Your task to perform on an android device: Search for razer blade on costco, select the first entry, add it to the cart, then select checkout. Image 0: 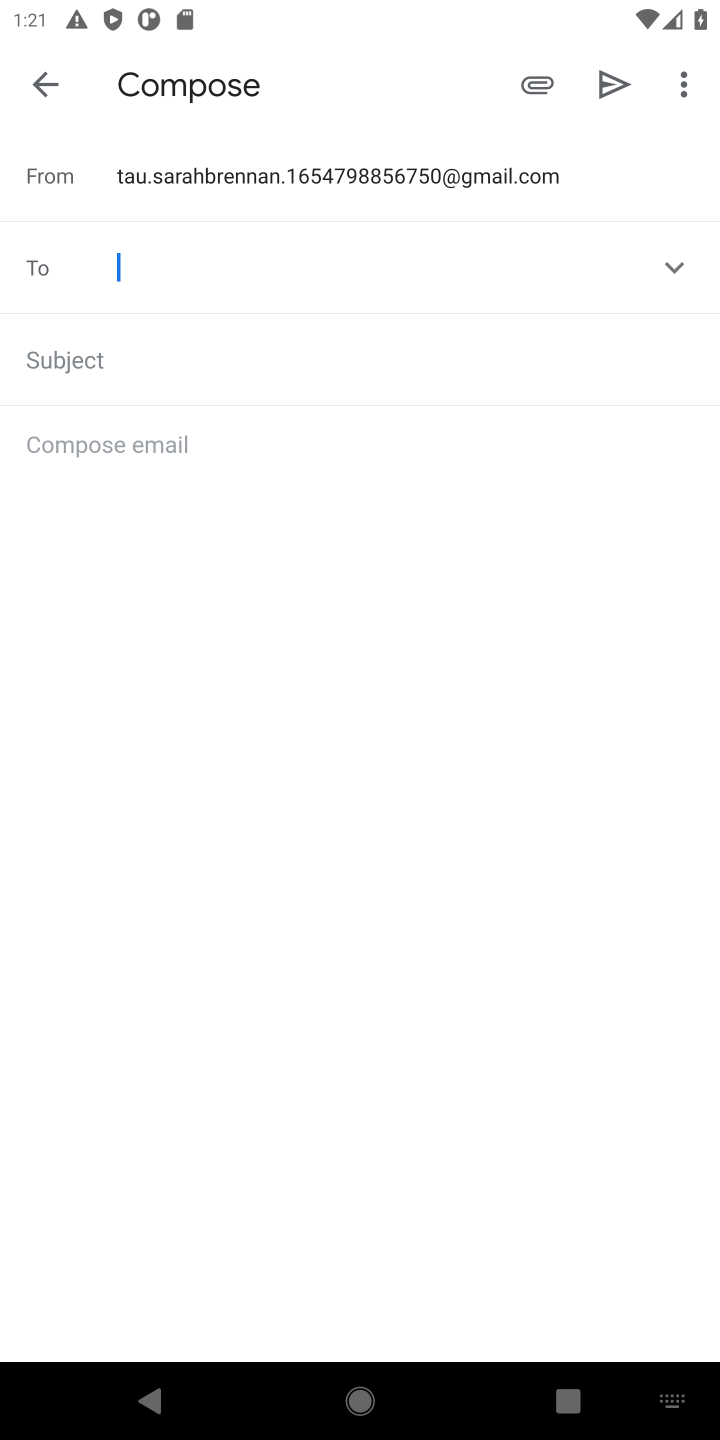
Step 0: press home button
Your task to perform on an android device: Search for razer blade on costco, select the first entry, add it to the cart, then select checkout. Image 1: 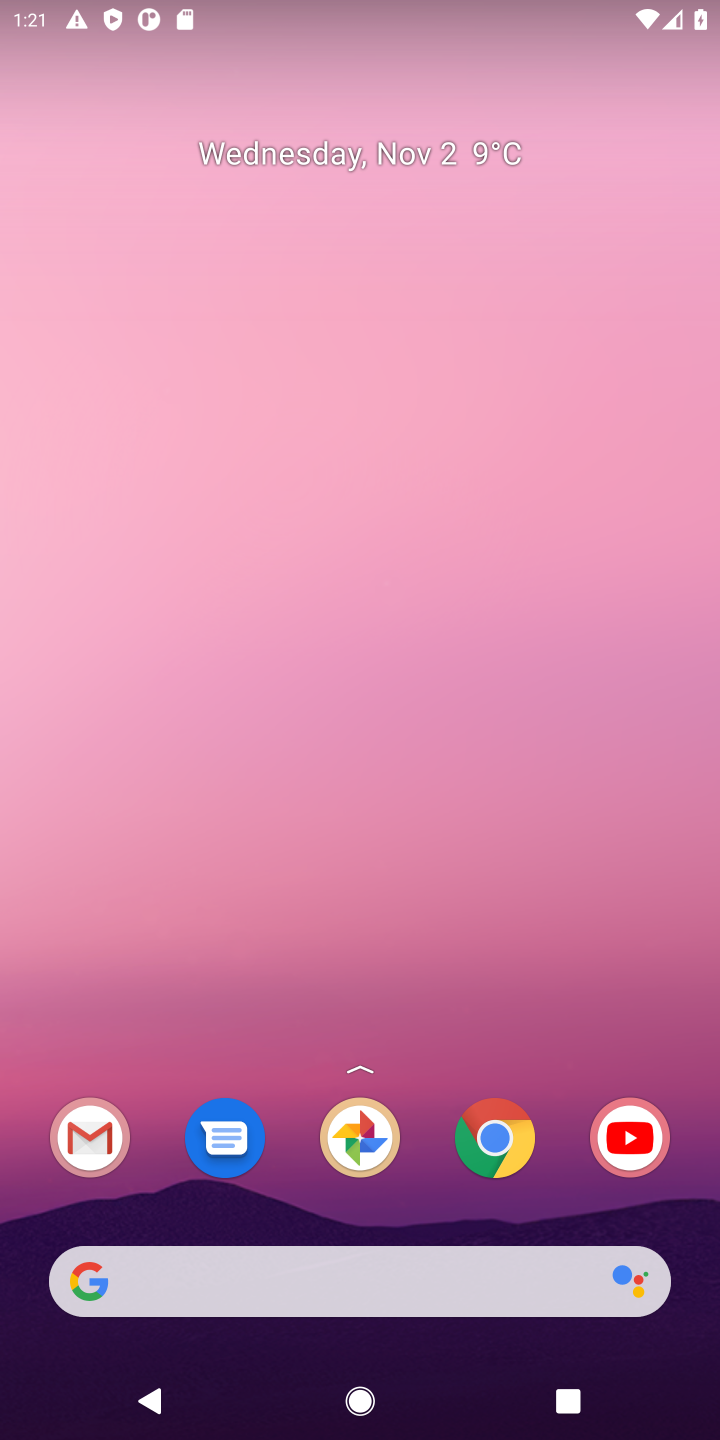
Step 1: click (505, 1147)
Your task to perform on an android device: Search for razer blade on costco, select the first entry, add it to the cart, then select checkout. Image 2: 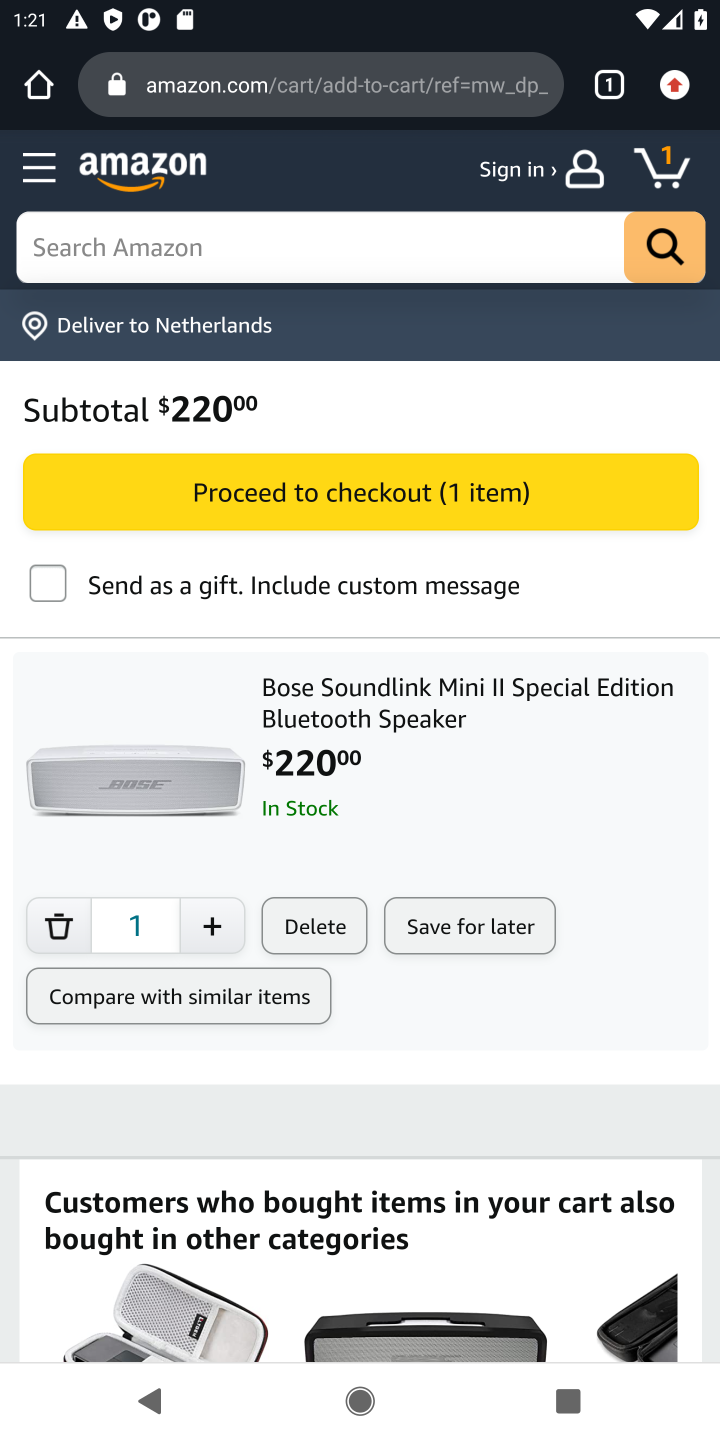
Step 2: click (154, 68)
Your task to perform on an android device: Search for razer blade on costco, select the first entry, add it to the cart, then select checkout. Image 3: 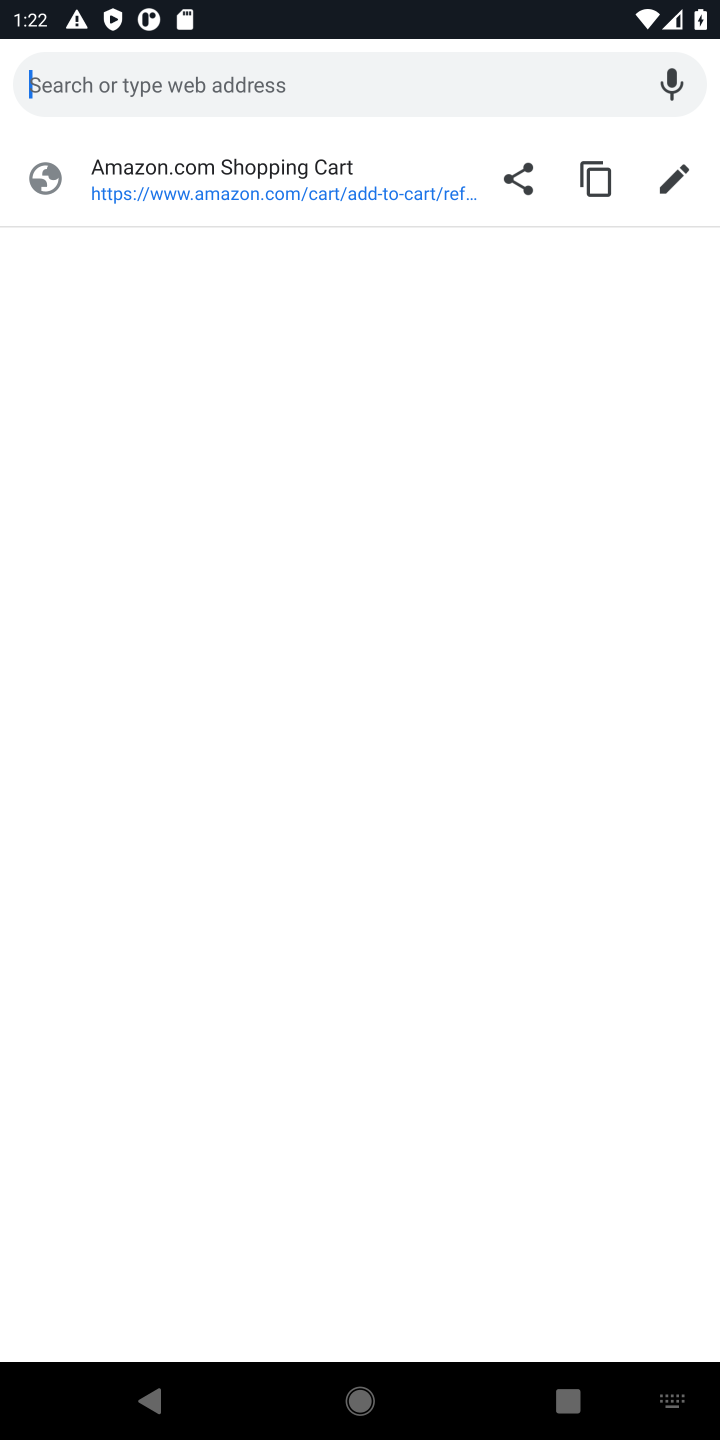
Step 3: type "costco"
Your task to perform on an android device: Search for razer blade on costco, select the first entry, add it to the cart, then select checkout. Image 4: 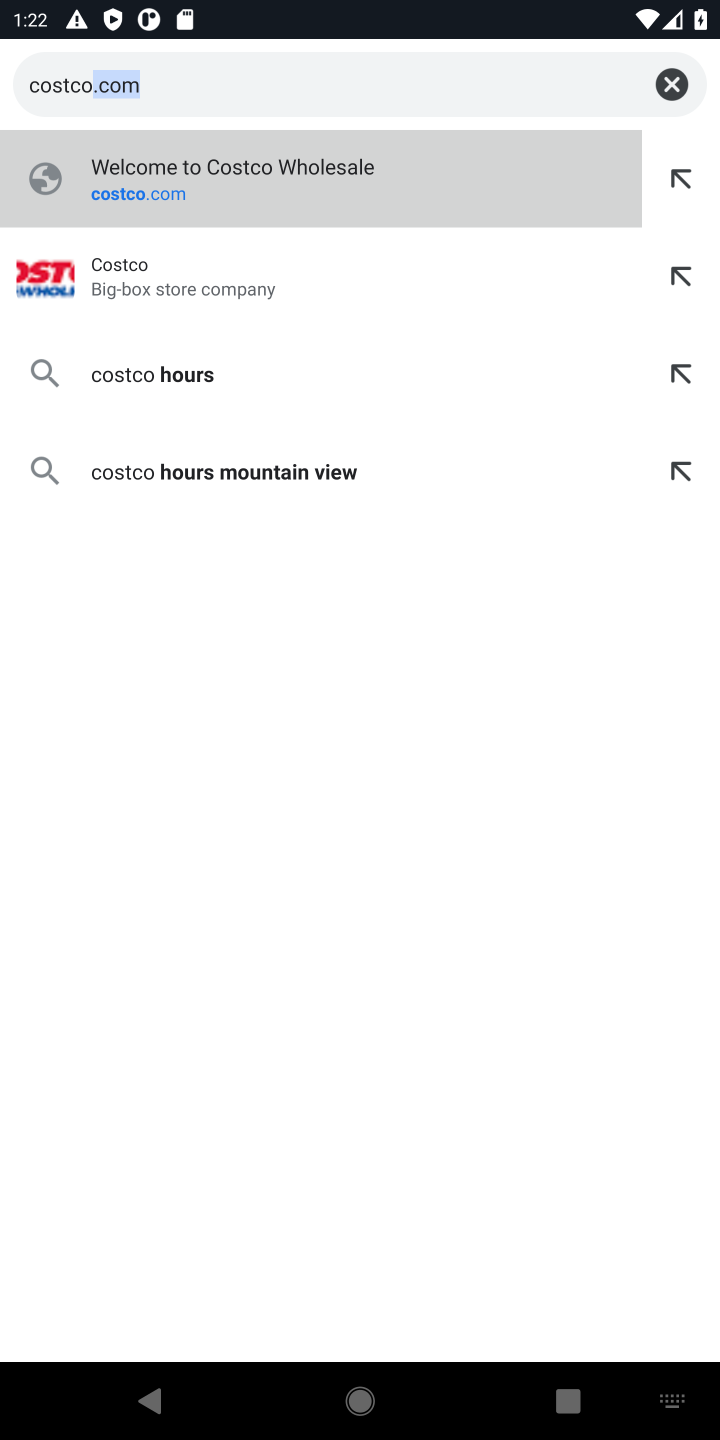
Step 4: click (262, 275)
Your task to perform on an android device: Search for razer blade on costco, select the first entry, add it to the cart, then select checkout. Image 5: 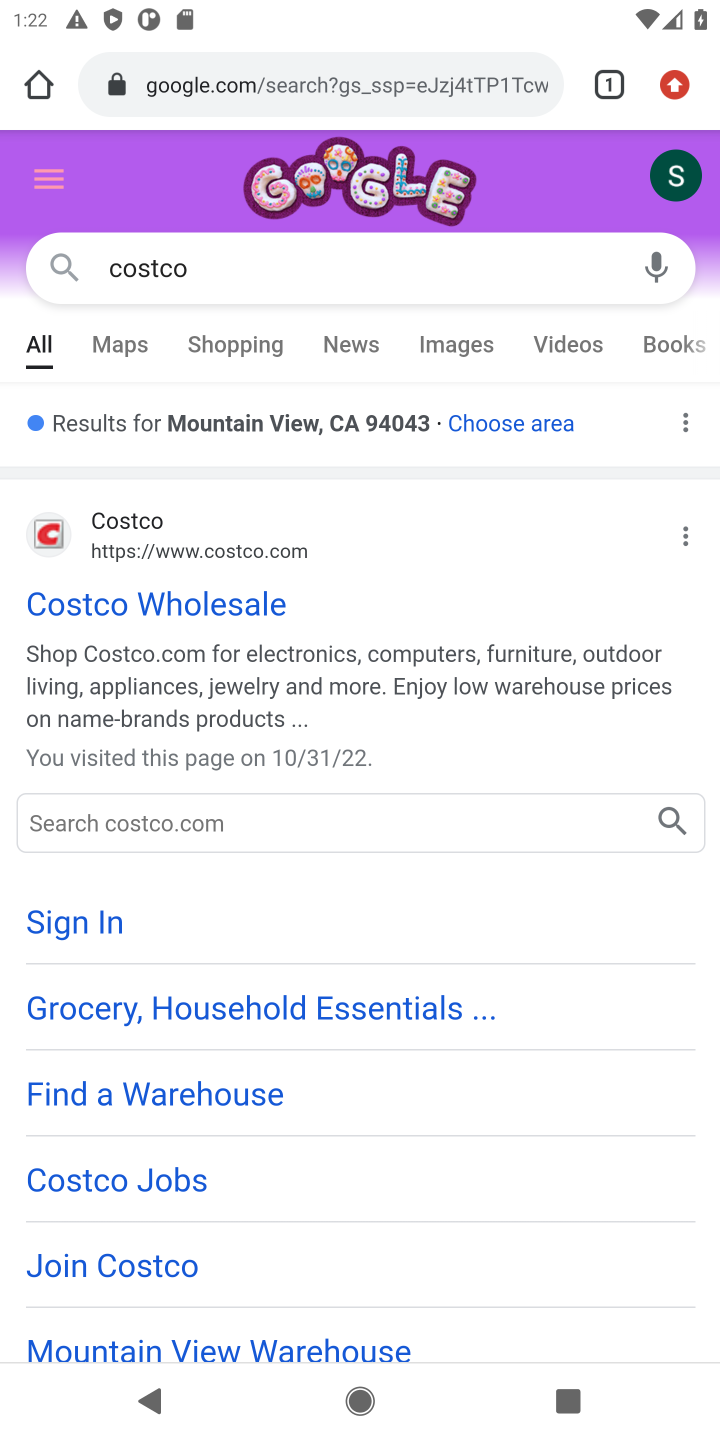
Step 5: click (97, 616)
Your task to perform on an android device: Search for razer blade on costco, select the first entry, add it to the cart, then select checkout. Image 6: 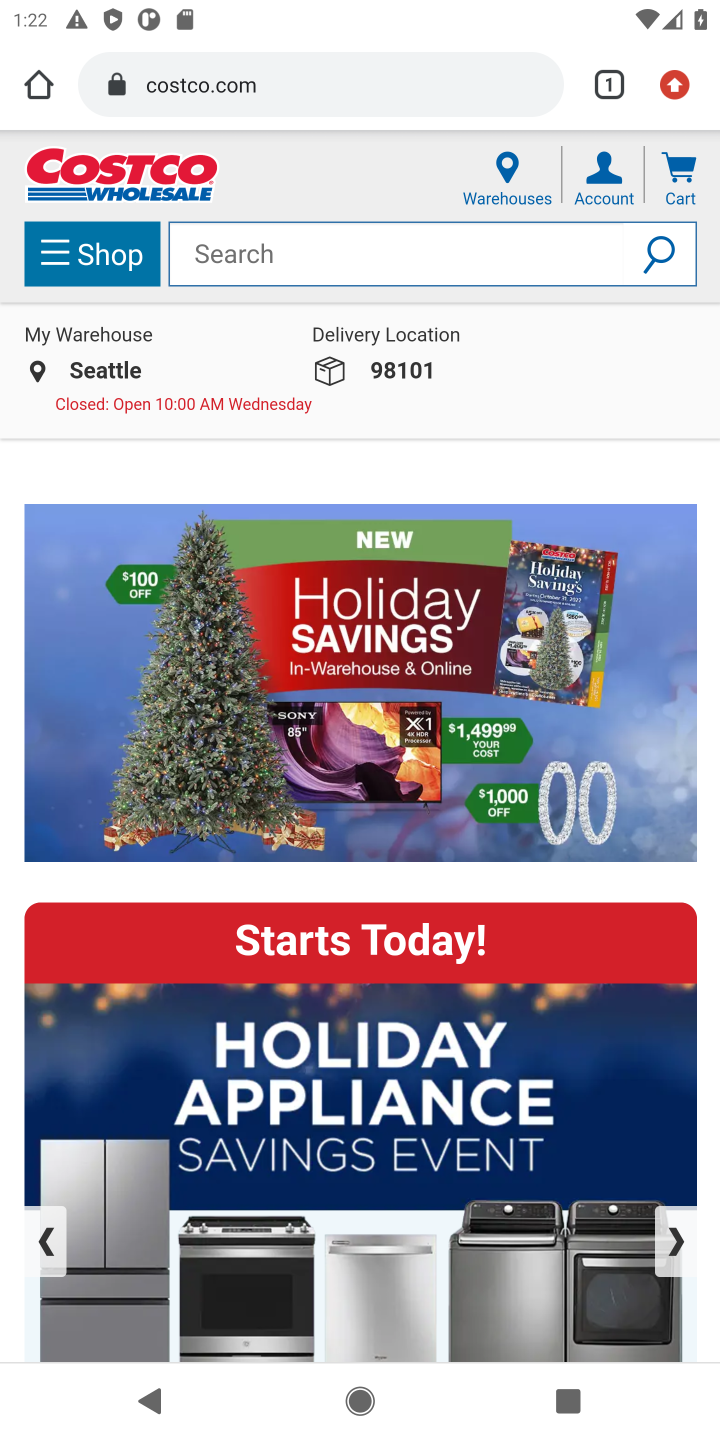
Step 6: click (232, 270)
Your task to perform on an android device: Search for razer blade on costco, select the first entry, add it to the cart, then select checkout. Image 7: 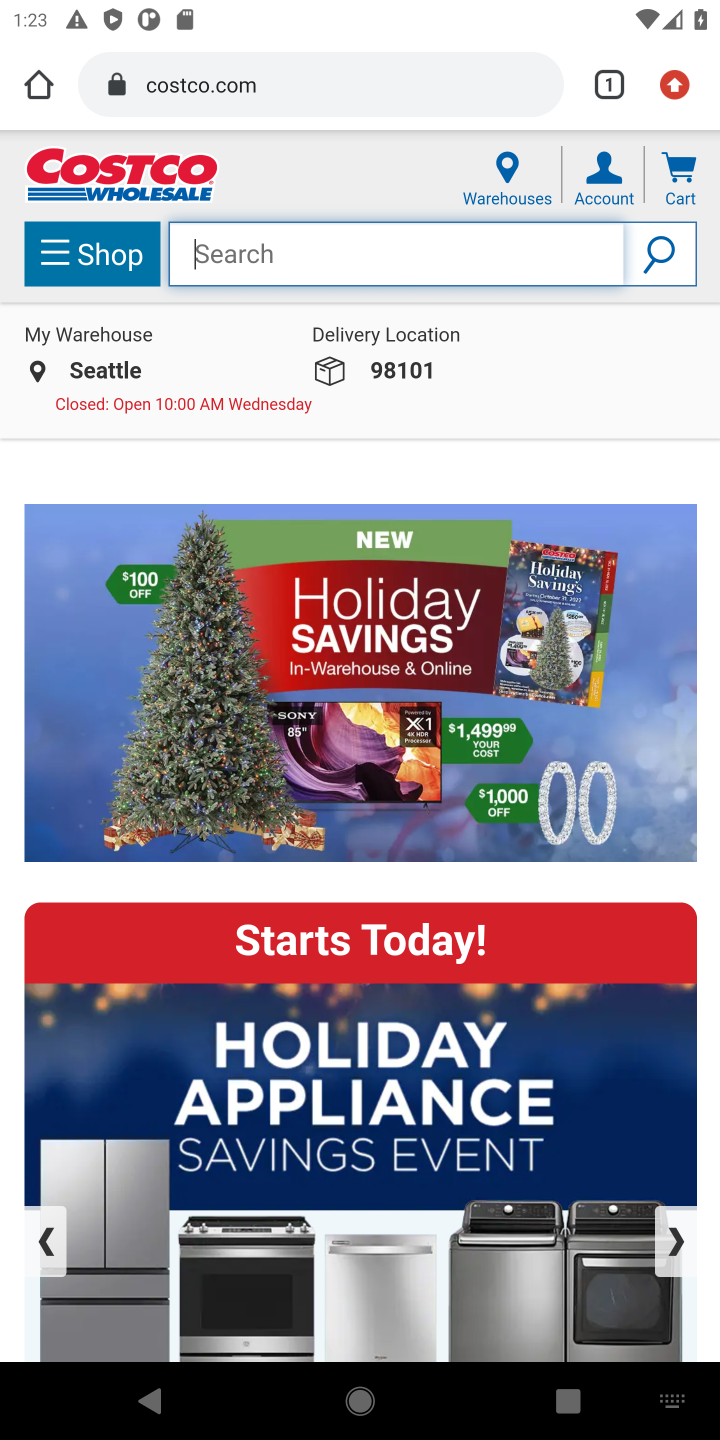
Step 7: type "razer blade "
Your task to perform on an android device: Search for razer blade on costco, select the first entry, add it to the cart, then select checkout. Image 8: 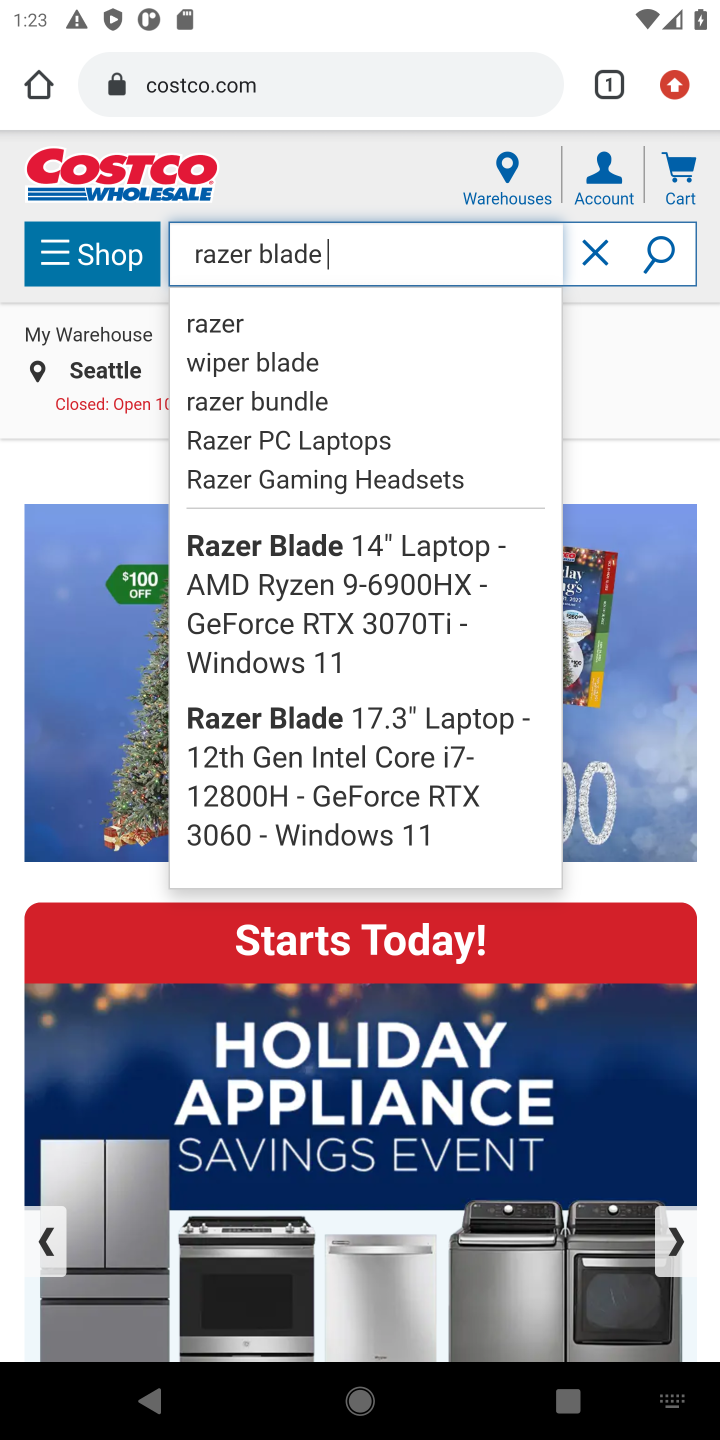
Step 8: click (671, 241)
Your task to perform on an android device: Search for razer blade on costco, select the first entry, add it to the cart, then select checkout. Image 9: 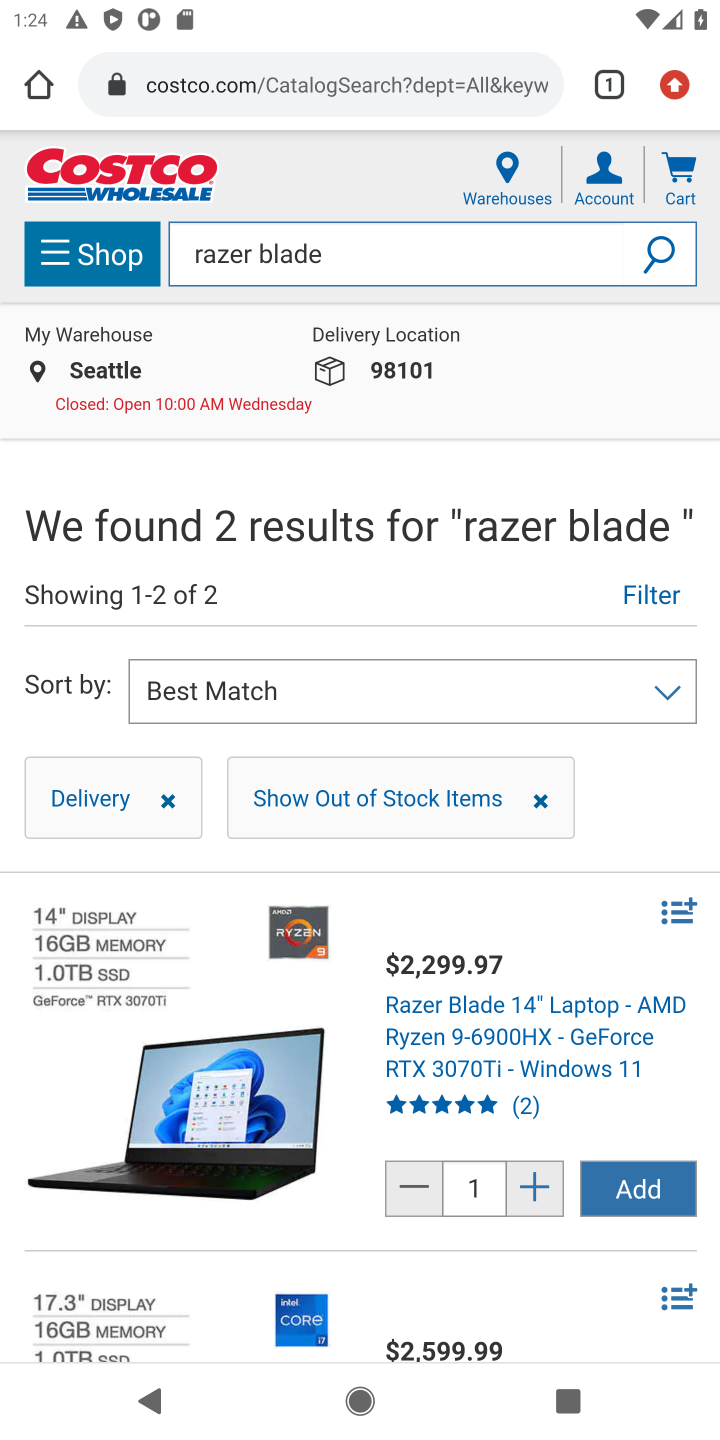
Step 9: click (489, 1005)
Your task to perform on an android device: Search for razer blade on costco, select the first entry, add it to the cart, then select checkout. Image 10: 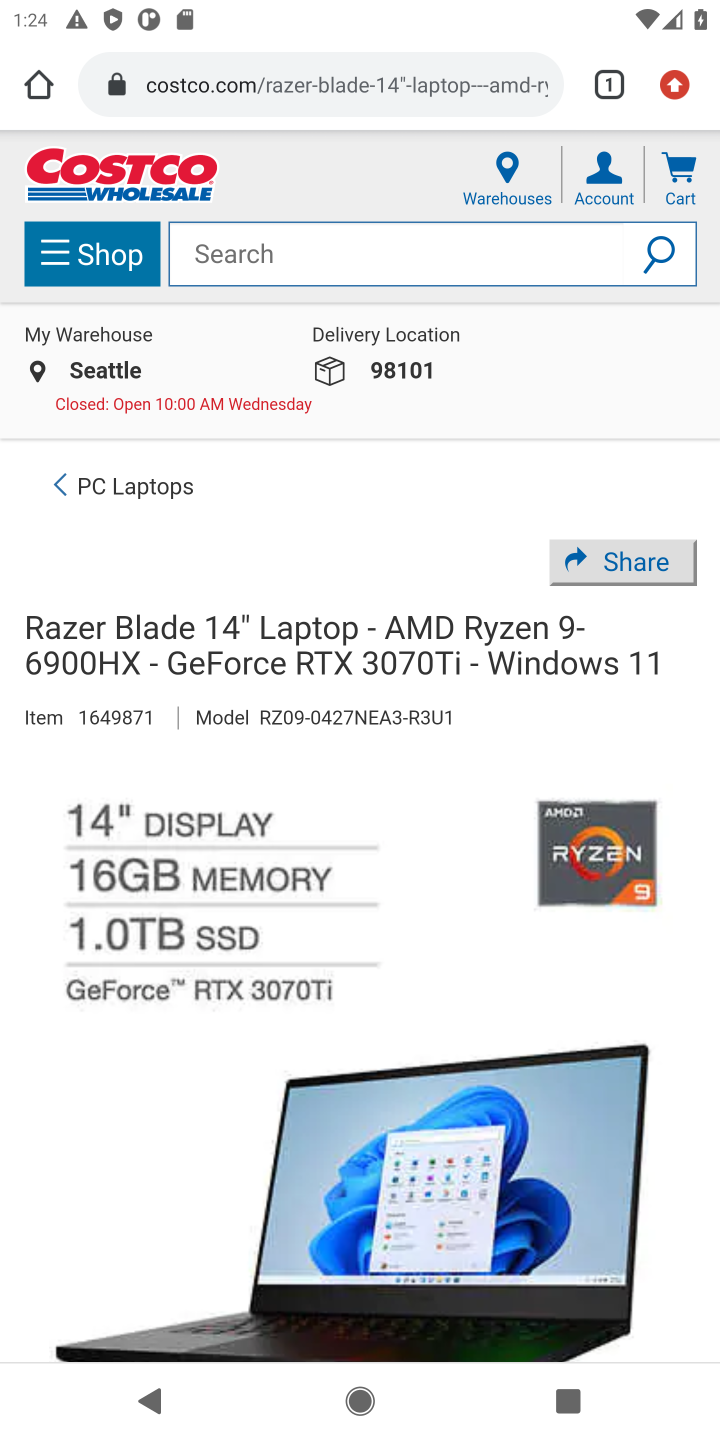
Step 10: drag from (182, 1272) to (219, 564)
Your task to perform on an android device: Search for razer blade on costco, select the first entry, add it to the cart, then select checkout. Image 11: 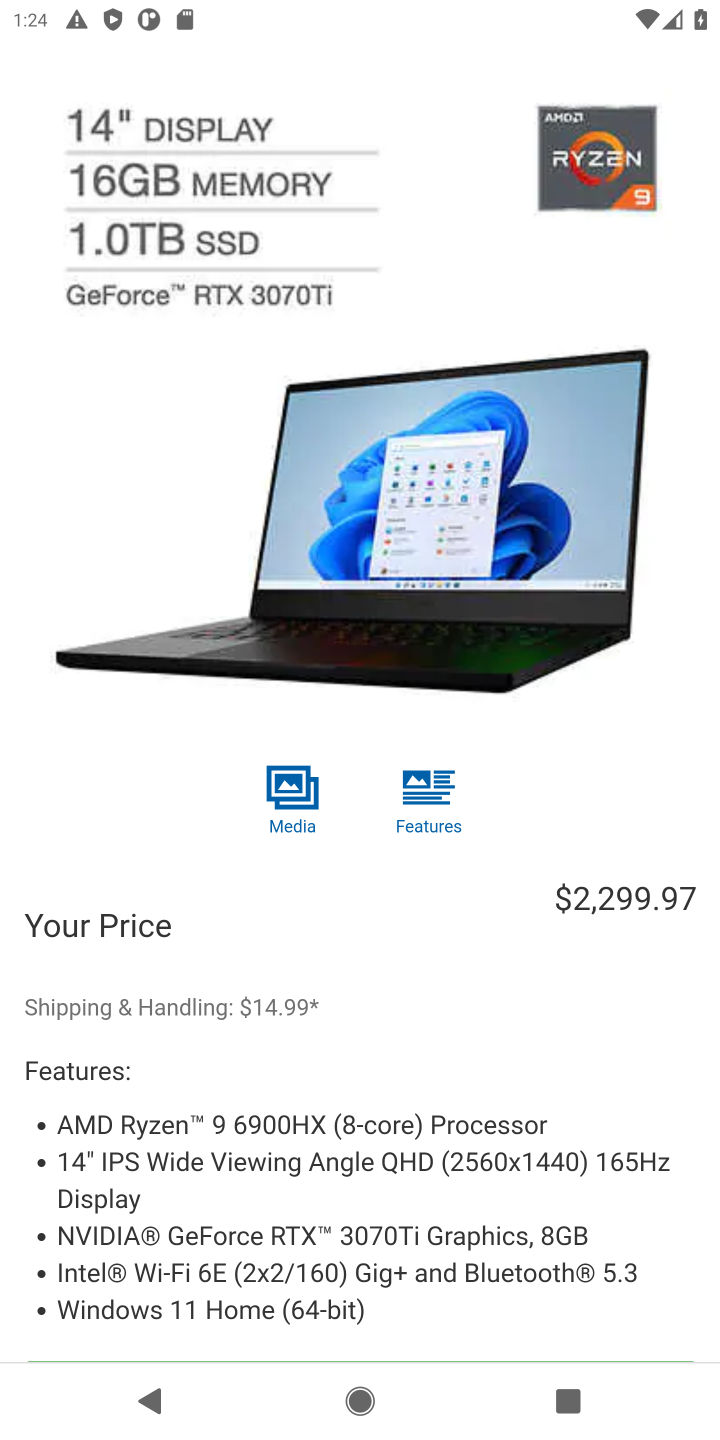
Step 11: drag from (255, 1187) to (248, 139)
Your task to perform on an android device: Search for razer blade on costco, select the first entry, add it to the cart, then select checkout. Image 12: 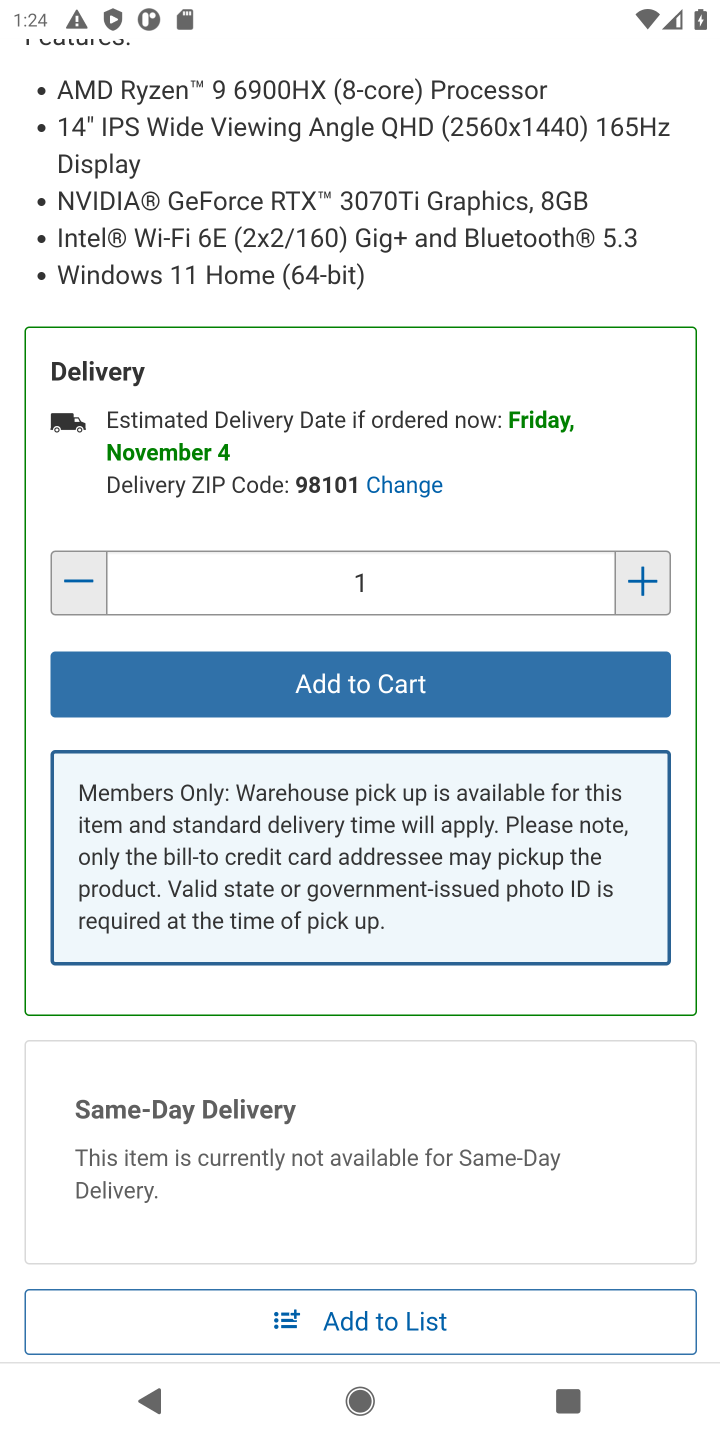
Step 12: click (442, 690)
Your task to perform on an android device: Search for razer blade on costco, select the first entry, add it to the cart, then select checkout. Image 13: 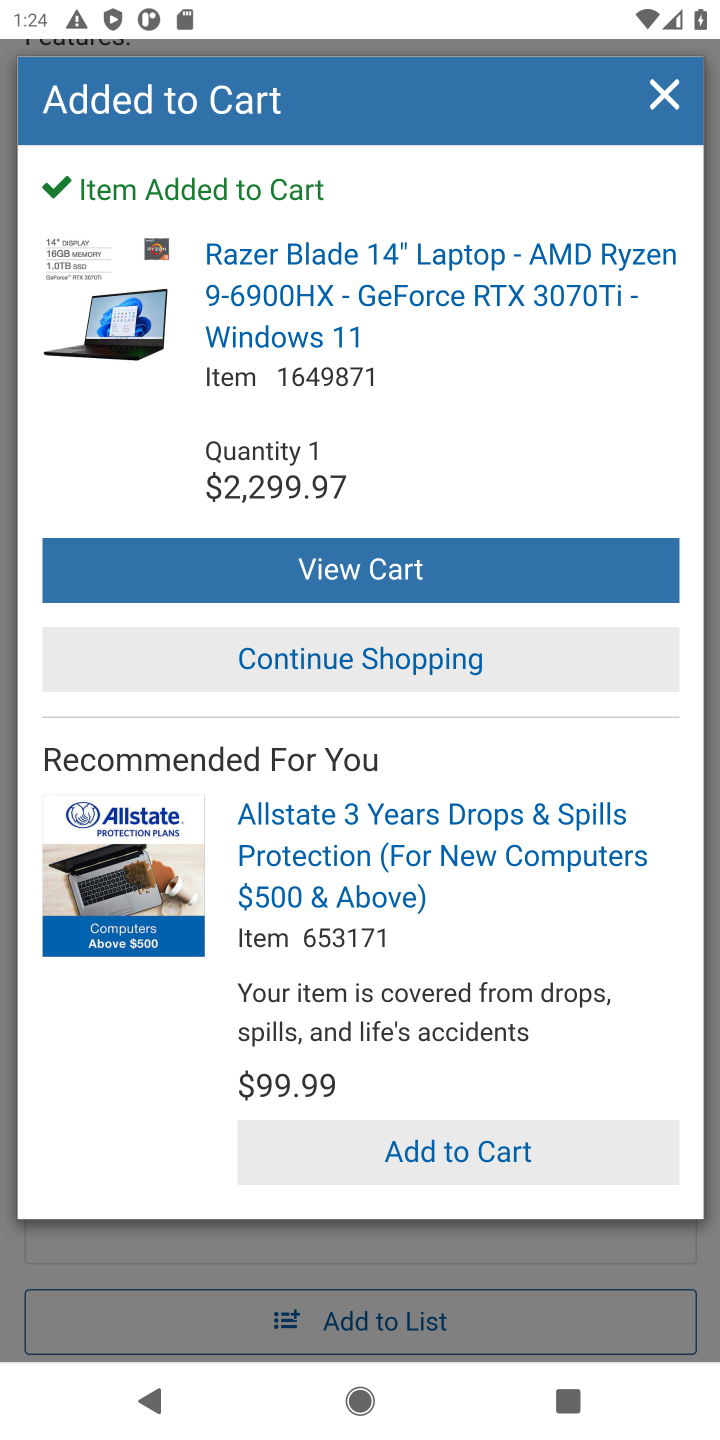
Step 13: click (519, 584)
Your task to perform on an android device: Search for razer blade on costco, select the first entry, add it to the cart, then select checkout. Image 14: 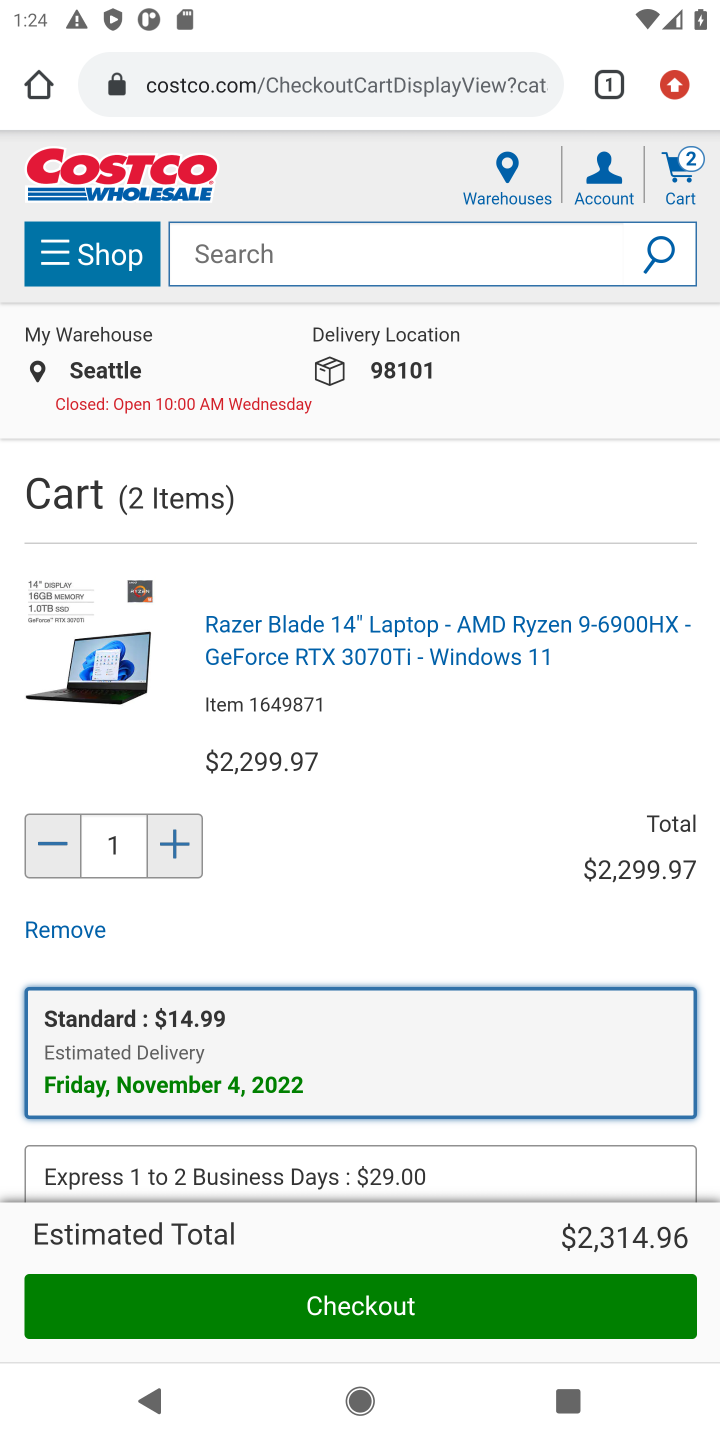
Step 14: click (341, 1318)
Your task to perform on an android device: Search for razer blade on costco, select the first entry, add it to the cart, then select checkout. Image 15: 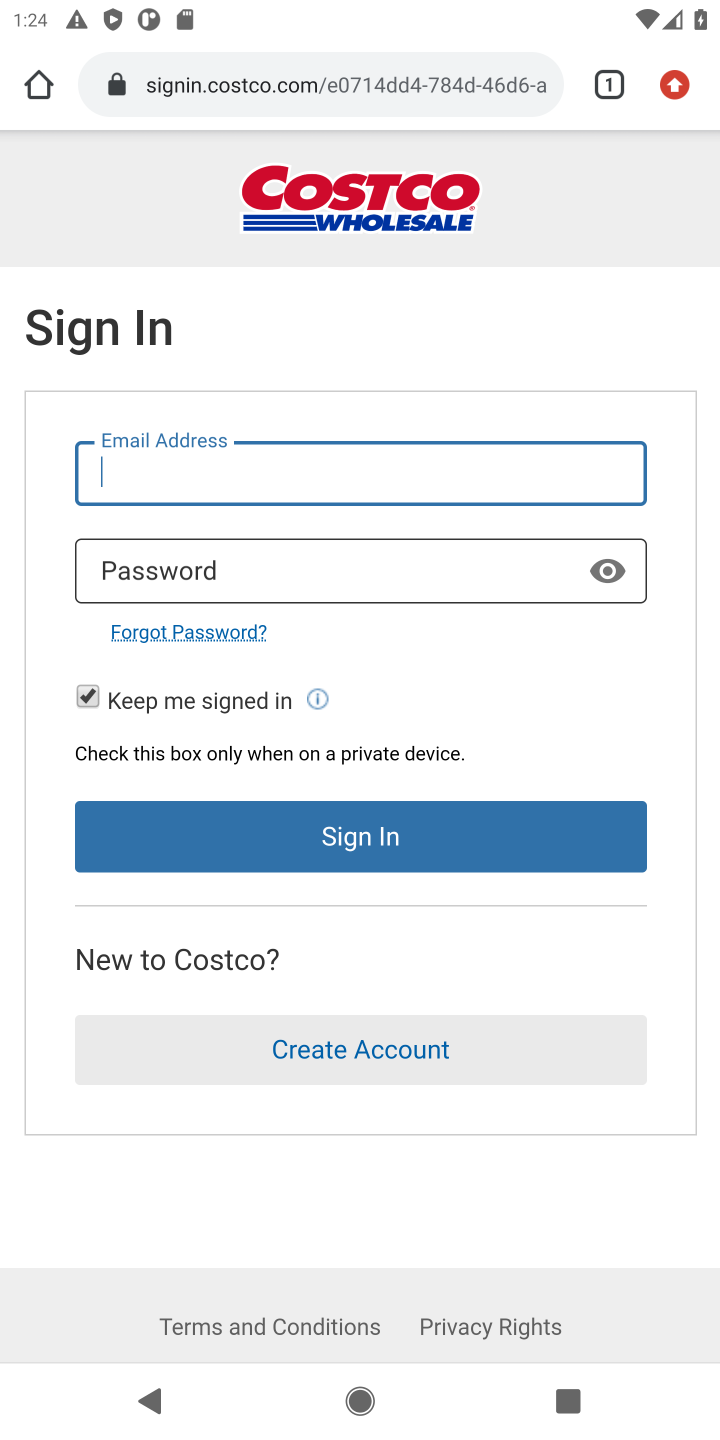
Step 15: task complete